Your task to perform on an android device: Open Amazon Image 0: 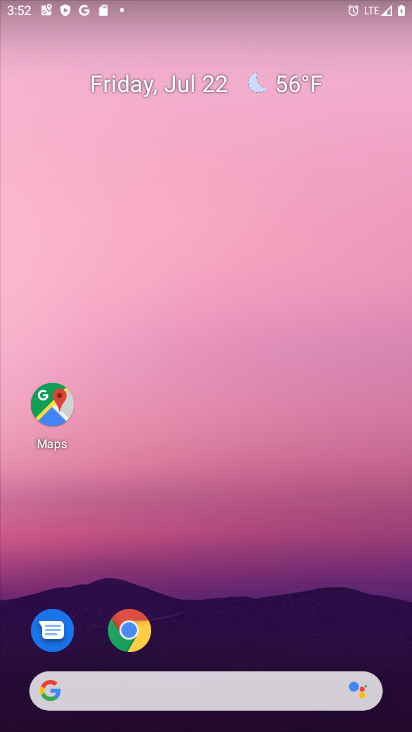
Step 0: click (148, 631)
Your task to perform on an android device: Open Amazon Image 1: 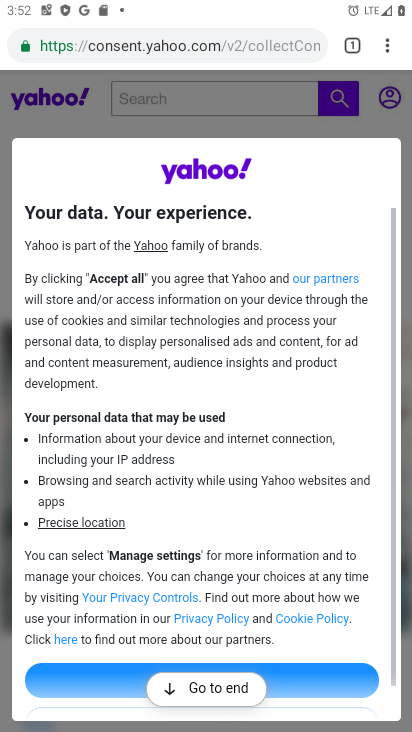
Step 1: click (159, 36)
Your task to perform on an android device: Open Amazon Image 2: 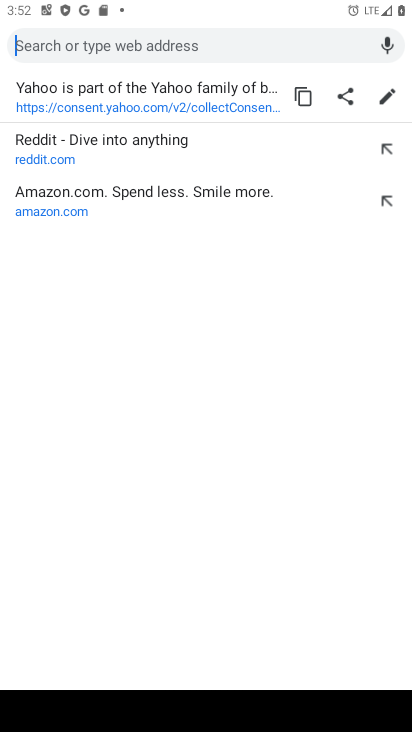
Step 2: type "amazon"
Your task to perform on an android device: Open Amazon Image 3: 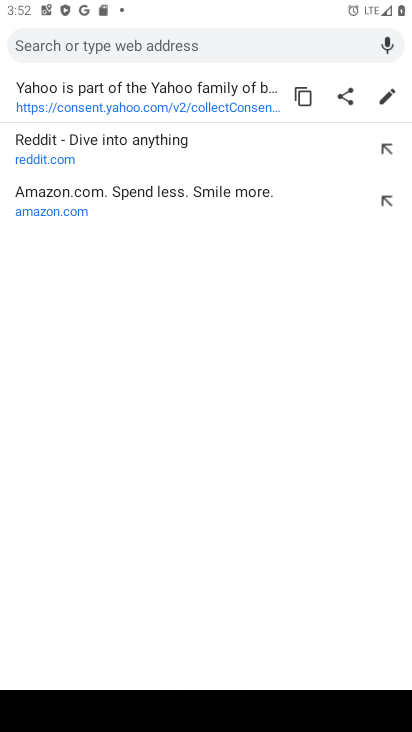
Step 3: click (196, 210)
Your task to perform on an android device: Open Amazon Image 4: 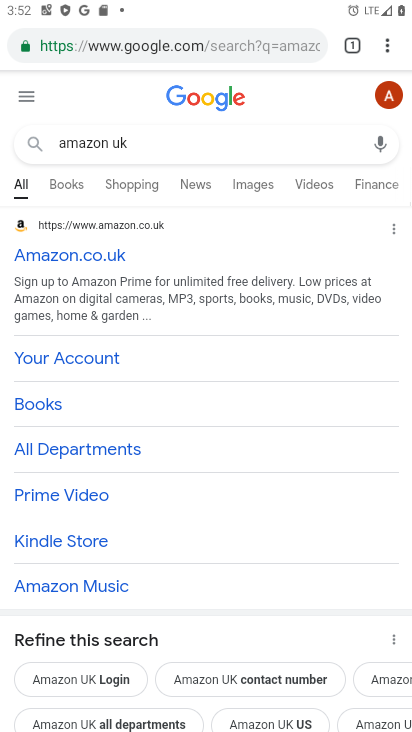
Step 4: task complete